Your task to perform on an android device: turn on location history Image 0: 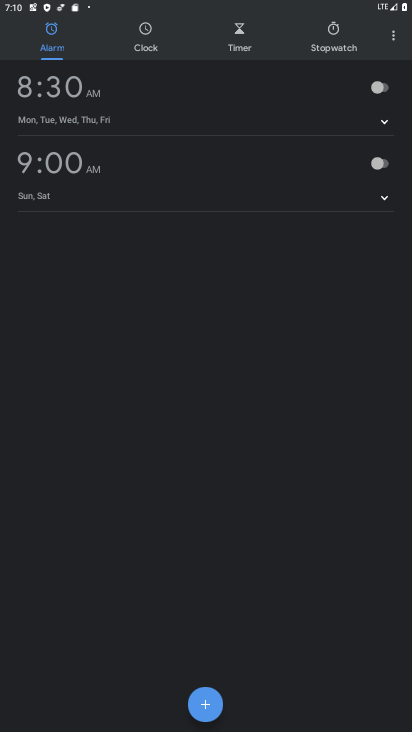
Step 0: press back button
Your task to perform on an android device: turn on location history Image 1: 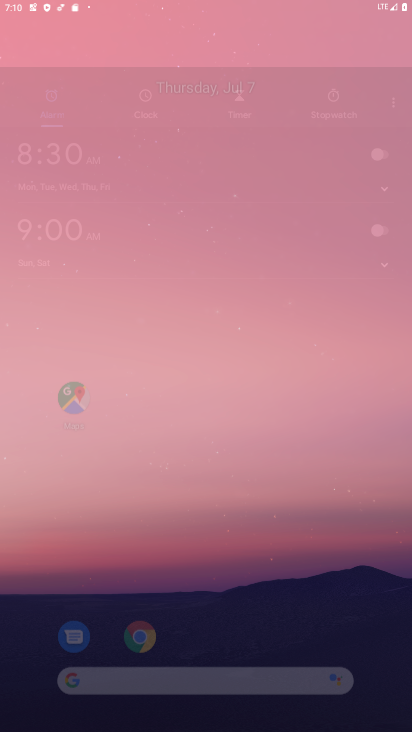
Step 1: press home button
Your task to perform on an android device: turn on location history Image 2: 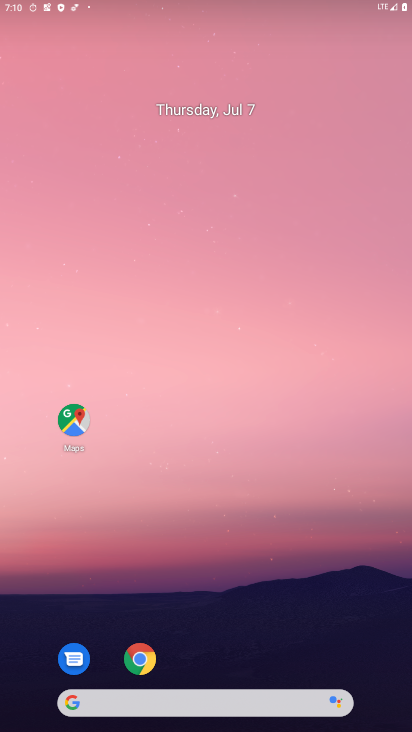
Step 2: drag from (330, 583) to (204, 0)
Your task to perform on an android device: turn on location history Image 3: 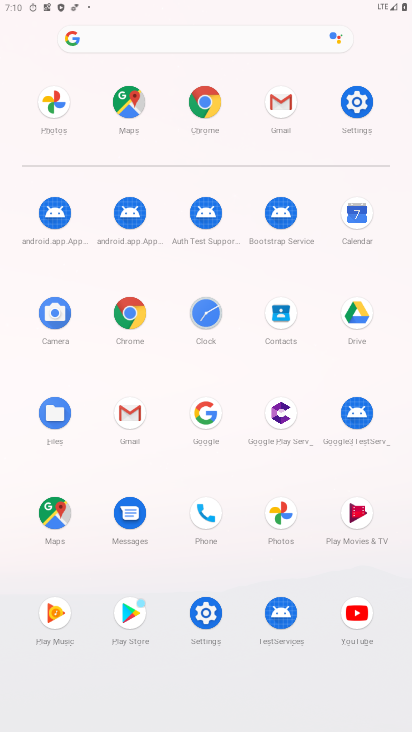
Step 3: click (363, 109)
Your task to perform on an android device: turn on location history Image 4: 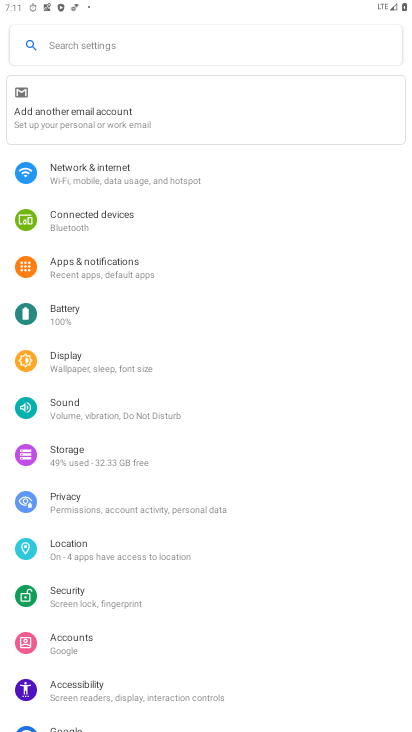
Step 4: click (106, 541)
Your task to perform on an android device: turn on location history Image 5: 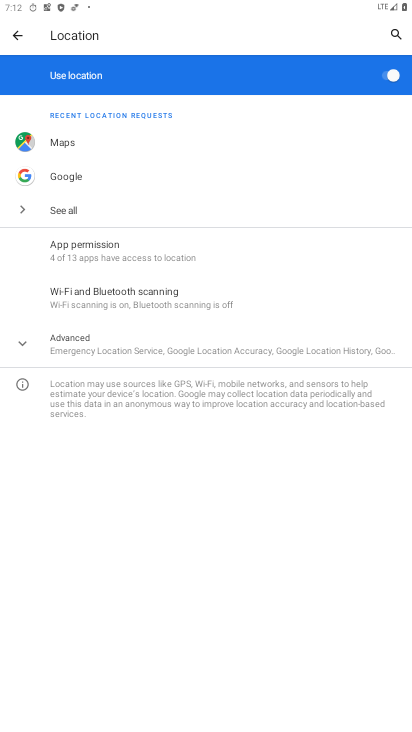
Step 5: click (55, 339)
Your task to perform on an android device: turn on location history Image 6: 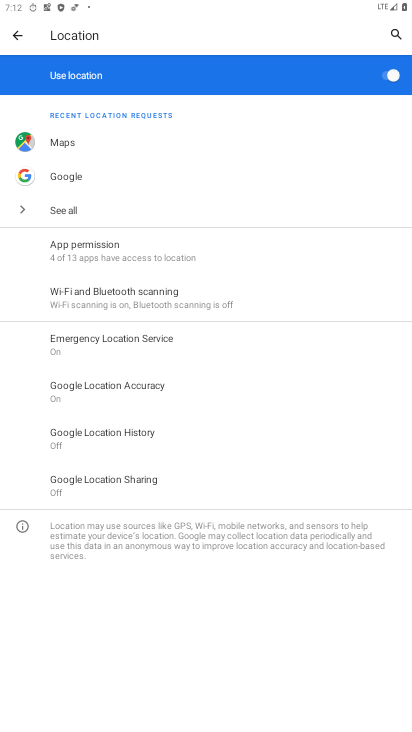
Step 6: click (118, 436)
Your task to perform on an android device: turn on location history Image 7: 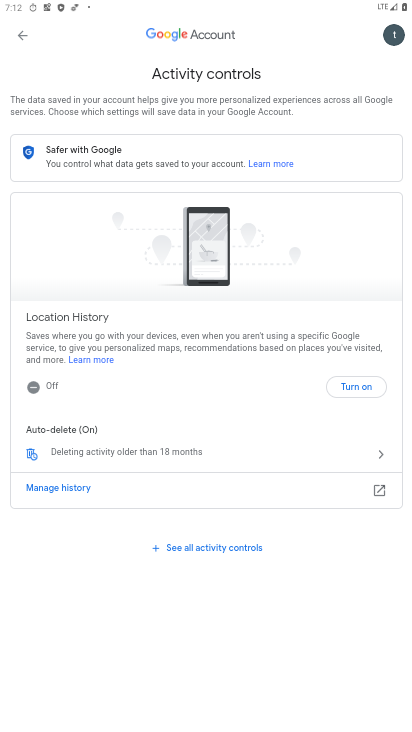
Step 7: task complete